Your task to perform on an android device: Open calendar and show me the first week of next month Image 0: 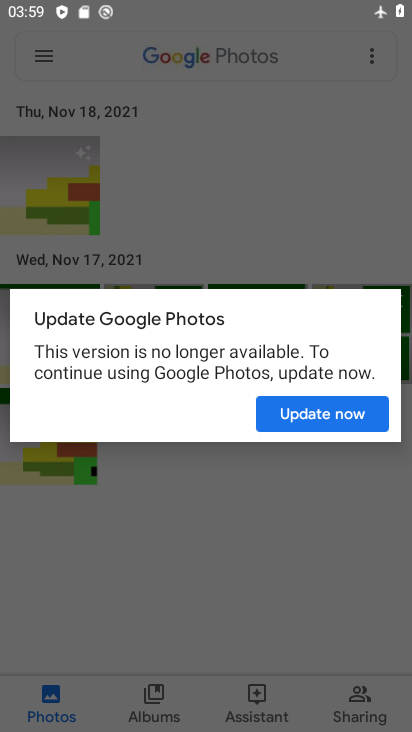
Step 0: press home button
Your task to perform on an android device: Open calendar and show me the first week of next month Image 1: 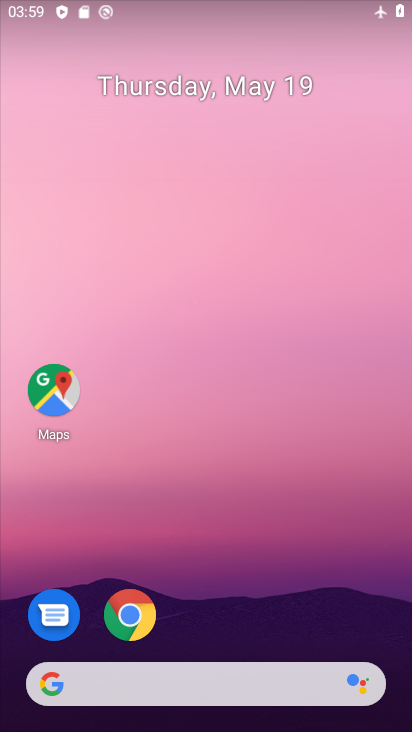
Step 1: drag from (276, 606) to (301, 9)
Your task to perform on an android device: Open calendar and show me the first week of next month Image 2: 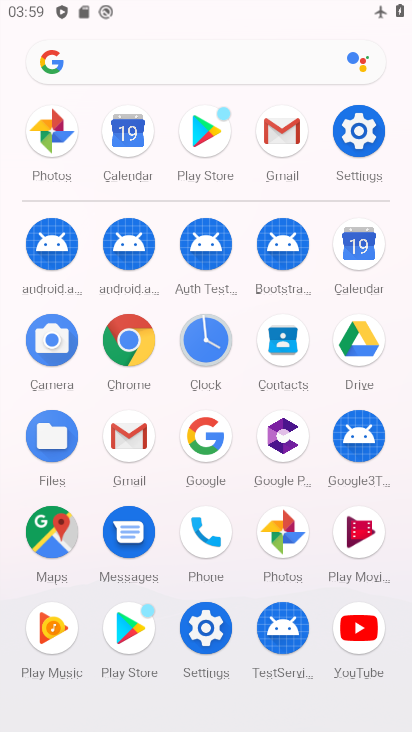
Step 2: click (121, 138)
Your task to perform on an android device: Open calendar and show me the first week of next month Image 3: 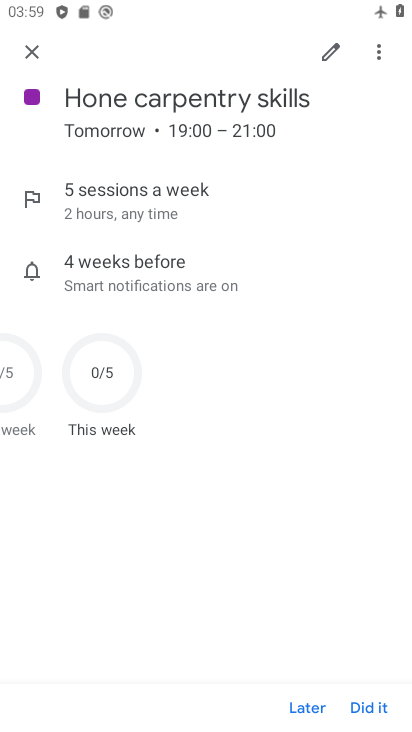
Step 3: click (35, 49)
Your task to perform on an android device: Open calendar and show me the first week of next month Image 4: 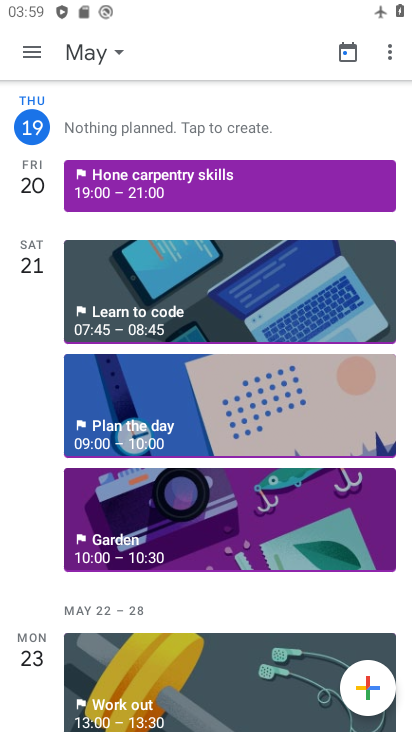
Step 4: click (120, 50)
Your task to perform on an android device: Open calendar and show me the first week of next month Image 5: 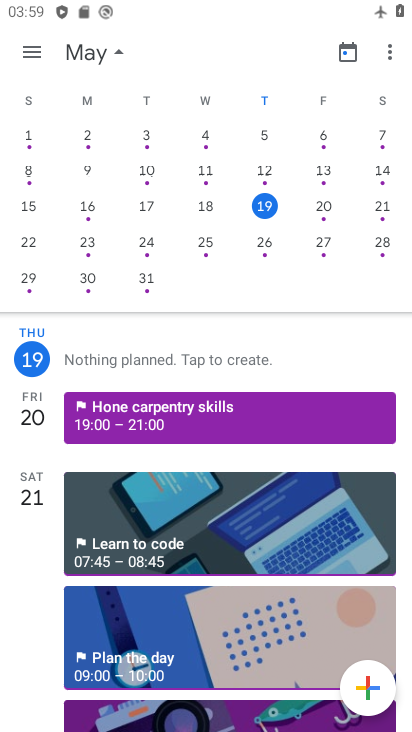
Step 5: drag from (260, 248) to (0, 62)
Your task to perform on an android device: Open calendar and show me the first week of next month Image 6: 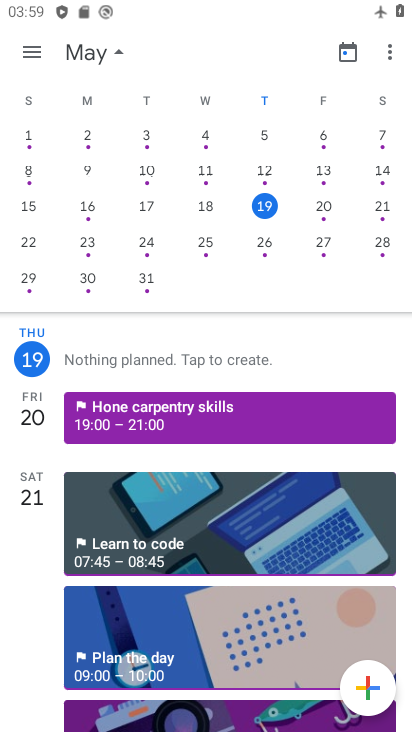
Step 6: drag from (307, 255) to (0, 223)
Your task to perform on an android device: Open calendar and show me the first week of next month Image 7: 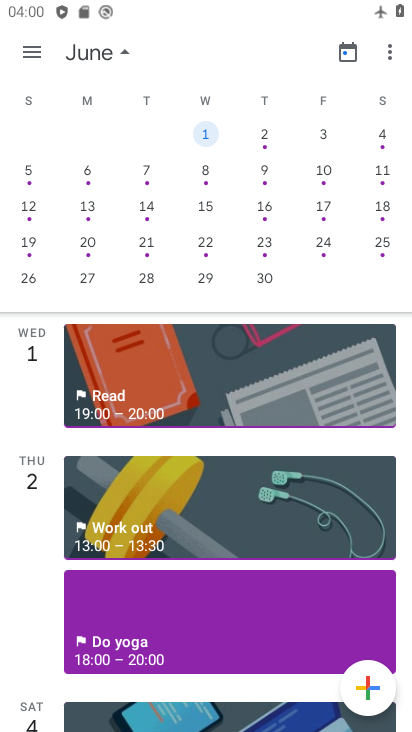
Step 7: click (30, 56)
Your task to perform on an android device: Open calendar and show me the first week of next month Image 8: 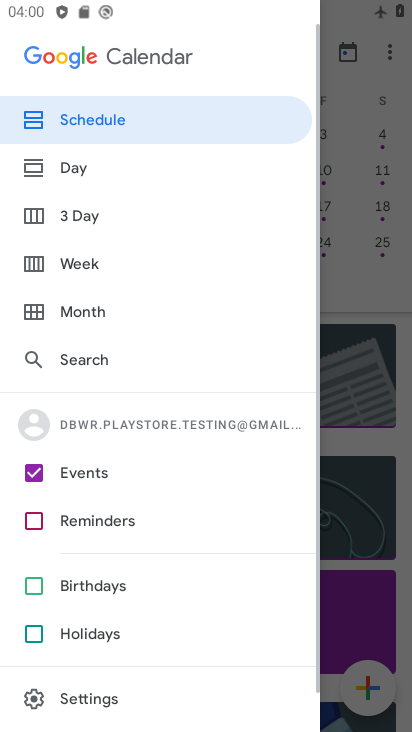
Step 8: click (62, 265)
Your task to perform on an android device: Open calendar and show me the first week of next month Image 9: 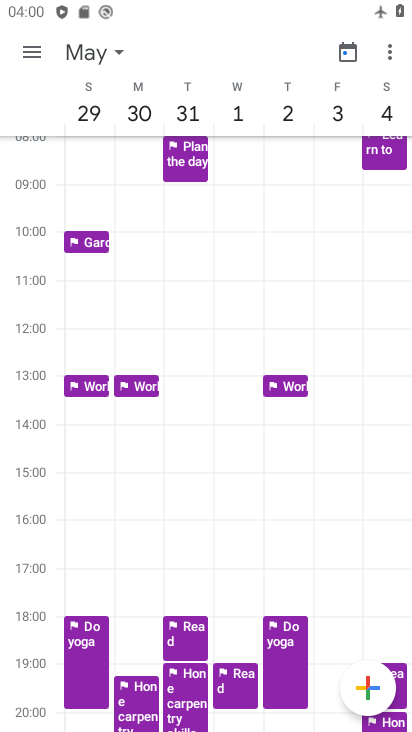
Step 9: task complete